Your task to perform on an android device: turn off sleep mode Image 0: 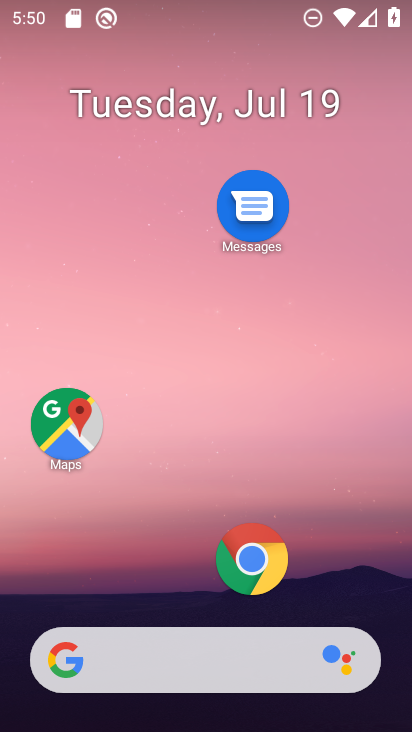
Step 0: drag from (147, 637) to (184, 78)
Your task to perform on an android device: turn off sleep mode Image 1: 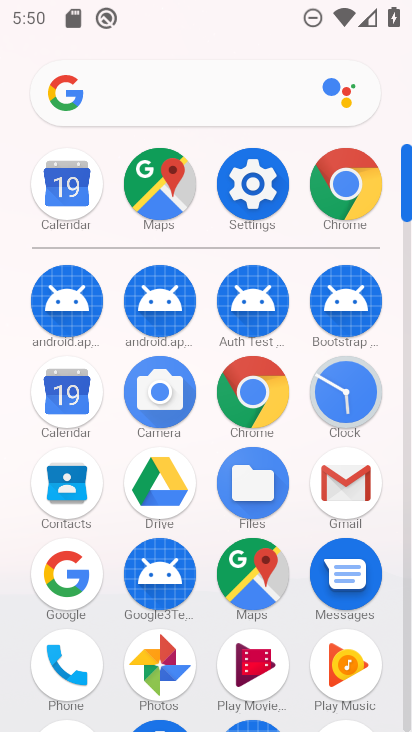
Step 1: click (249, 205)
Your task to perform on an android device: turn off sleep mode Image 2: 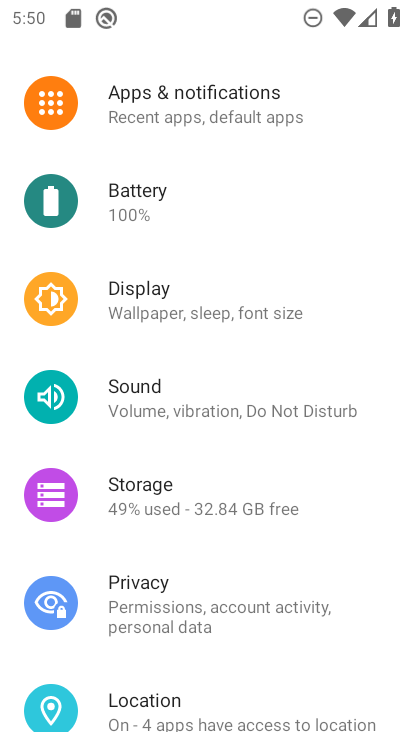
Step 2: drag from (212, 250) to (208, 654)
Your task to perform on an android device: turn off sleep mode Image 3: 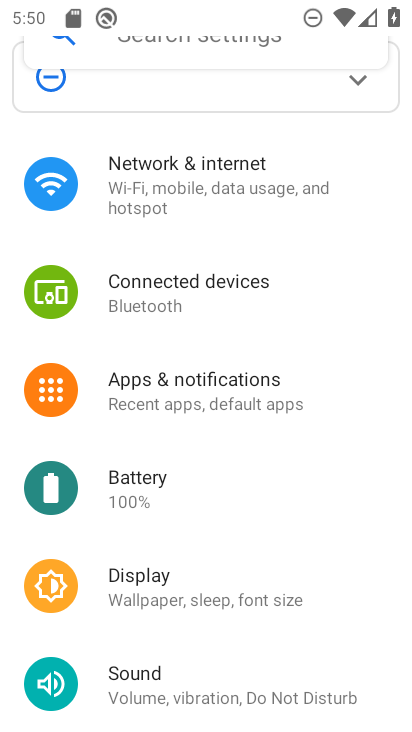
Step 3: click (164, 72)
Your task to perform on an android device: turn off sleep mode Image 4: 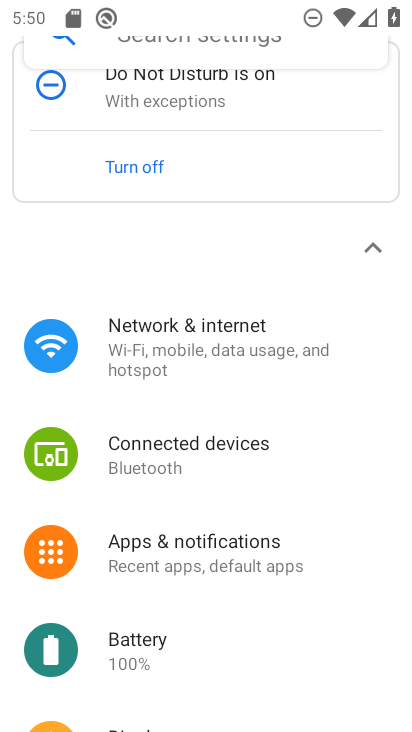
Step 4: drag from (196, 132) to (196, 697)
Your task to perform on an android device: turn off sleep mode Image 5: 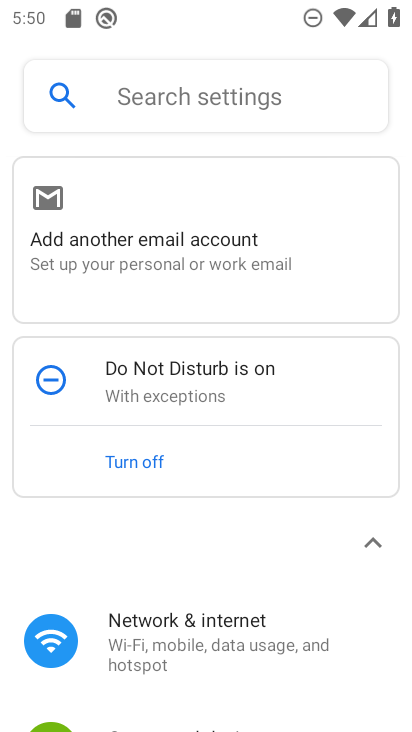
Step 5: click (151, 90)
Your task to perform on an android device: turn off sleep mode Image 6: 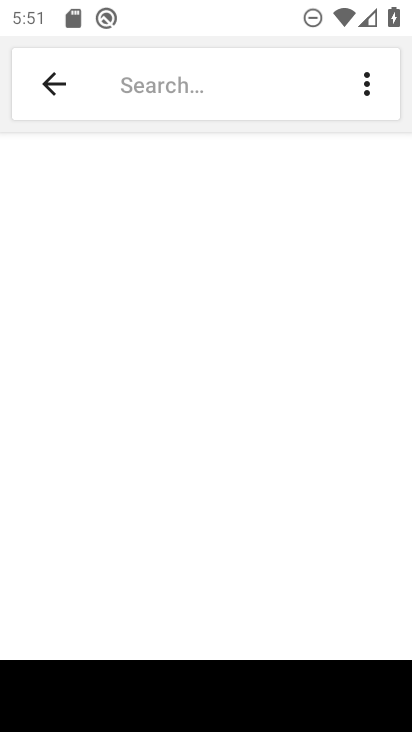
Step 6: type "sleep mode"
Your task to perform on an android device: turn off sleep mode Image 7: 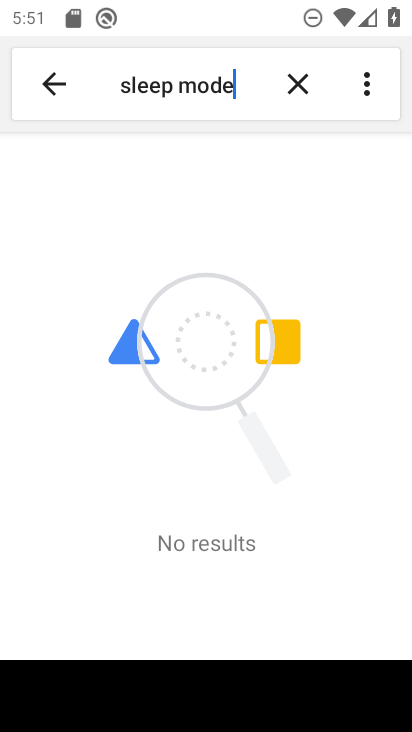
Step 7: task complete